Your task to perform on an android device: Go to notification settings Image 0: 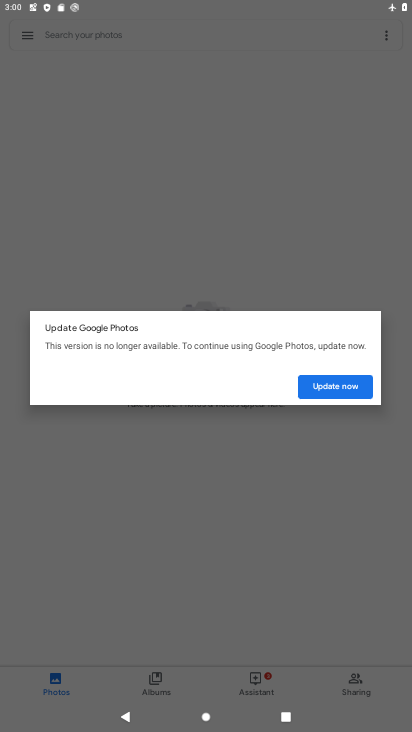
Step 0: press home button
Your task to perform on an android device: Go to notification settings Image 1: 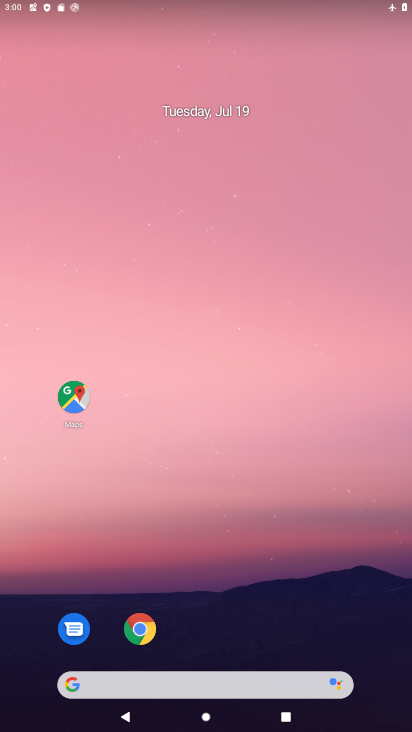
Step 1: drag from (200, 675) to (121, 113)
Your task to perform on an android device: Go to notification settings Image 2: 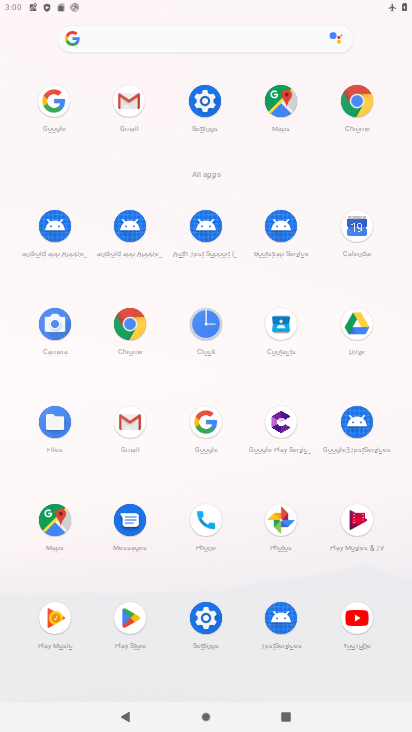
Step 2: click (208, 96)
Your task to perform on an android device: Go to notification settings Image 3: 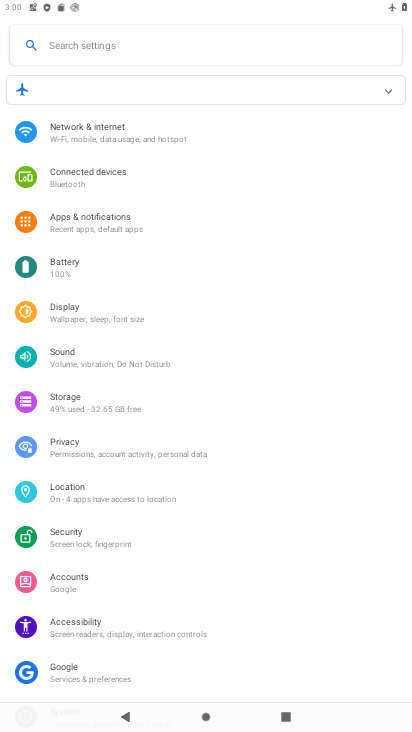
Step 3: click (123, 217)
Your task to perform on an android device: Go to notification settings Image 4: 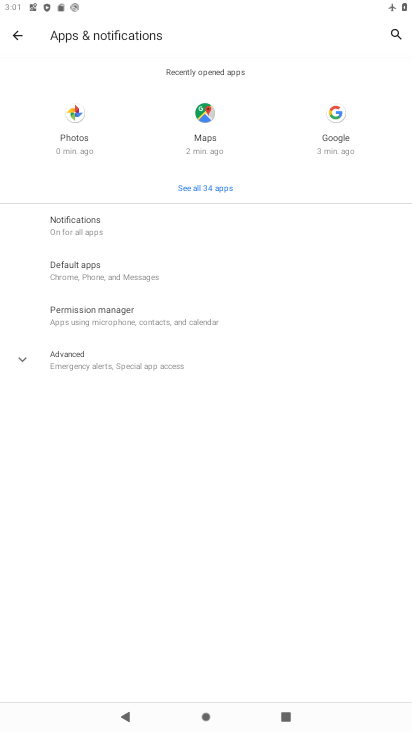
Step 4: task complete